Your task to perform on an android device: Play the latest video from the Wall Street Journal Image 0: 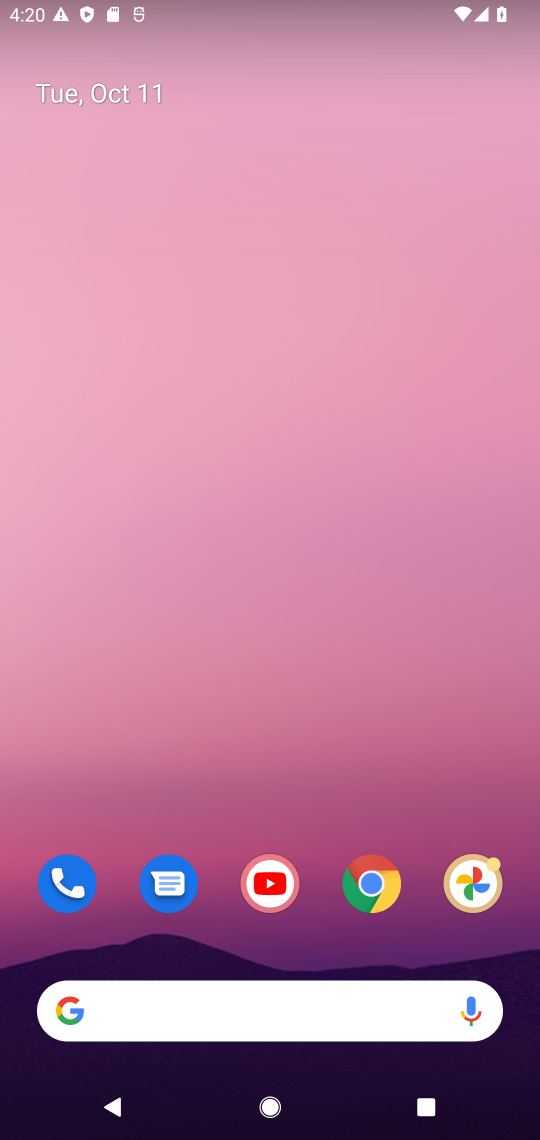
Step 0: drag from (321, 955) to (312, 69)
Your task to perform on an android device: Play the latest video from the Wall Street Journal Image 1: 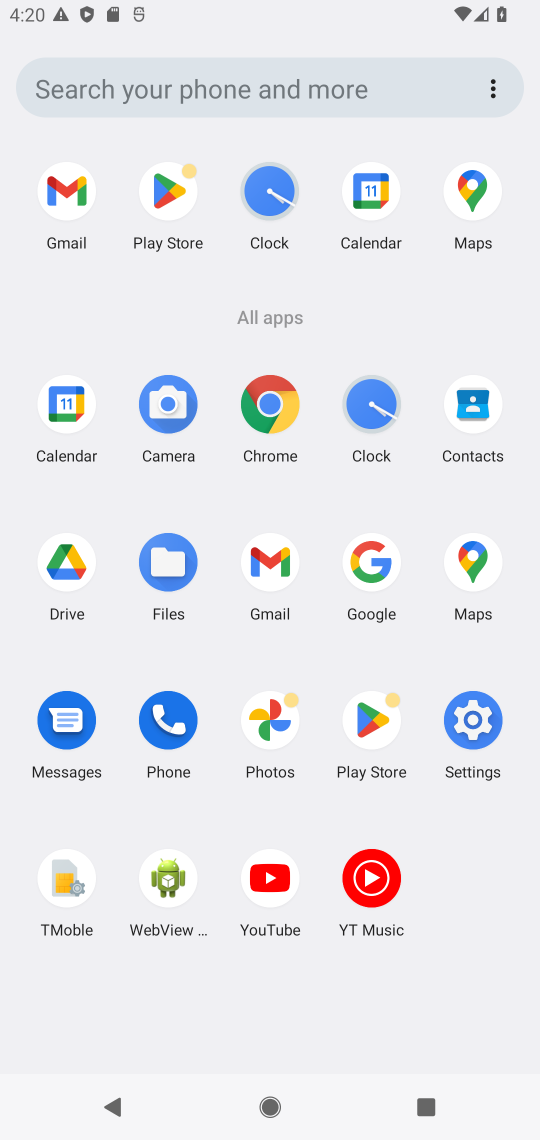
Step 1: click (268, 405)
Your task to perform on an android device: Play the latest video from the Wall Street Journal Image 2: 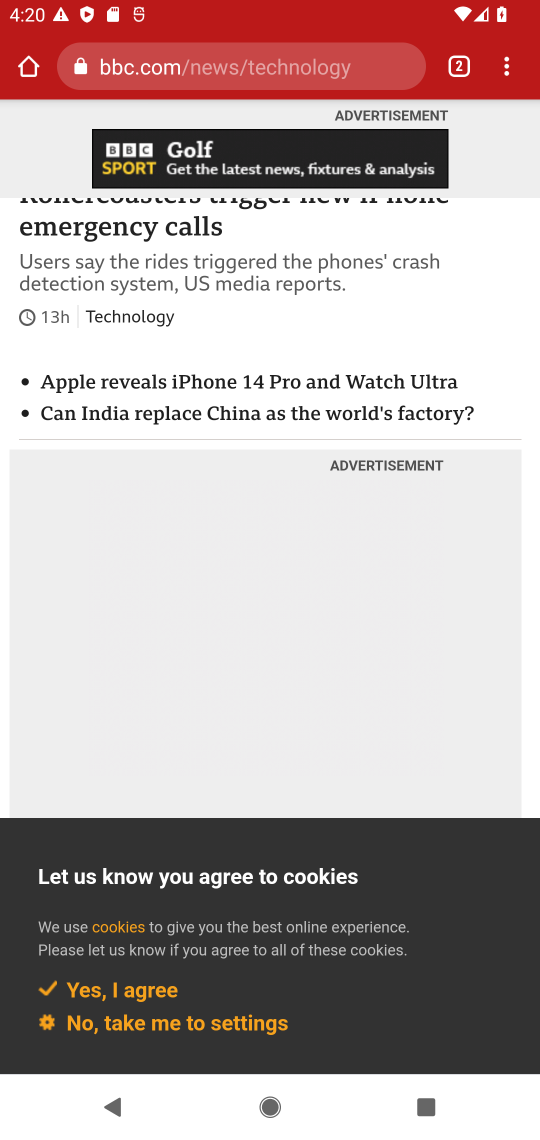
Step 2: click (266, 68)
Your task to perform on an android device: Play the latest video from the Wall Street Journal Image 3: 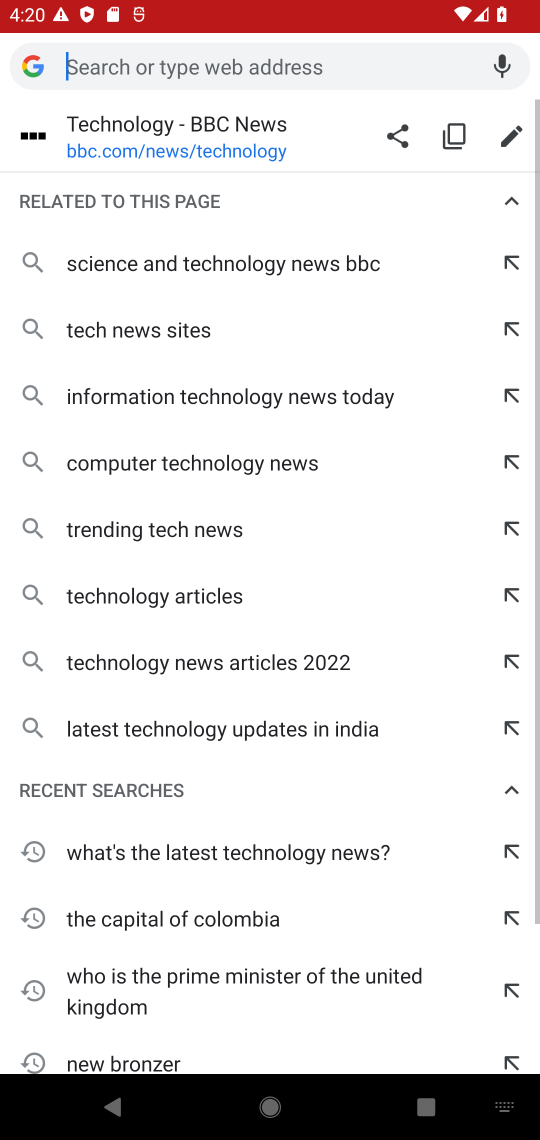
Step 3: press home button
Your task to perform on an android device: Play the latest video from the Wall Street Journal Image 4: 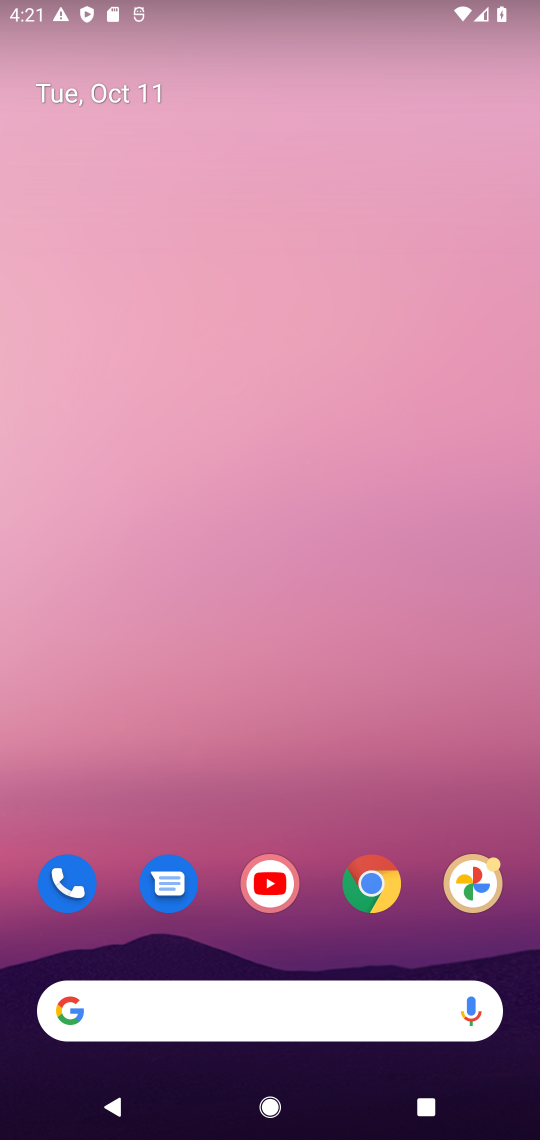
Step 4: drag from (327, 959) to (252, 5)
Your task to perform on an android device: Play the latest video from the Wall Street Journal Image 5: 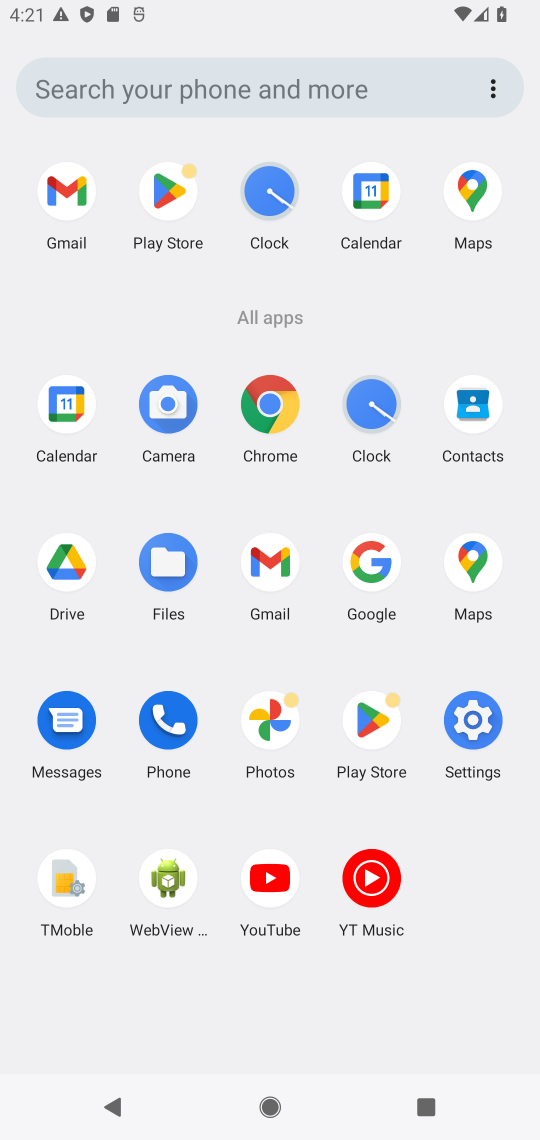
Step 5: click (266, 871)
Your task to perform on an android device: Play the latest video from the Wall Street Journal Image 6: 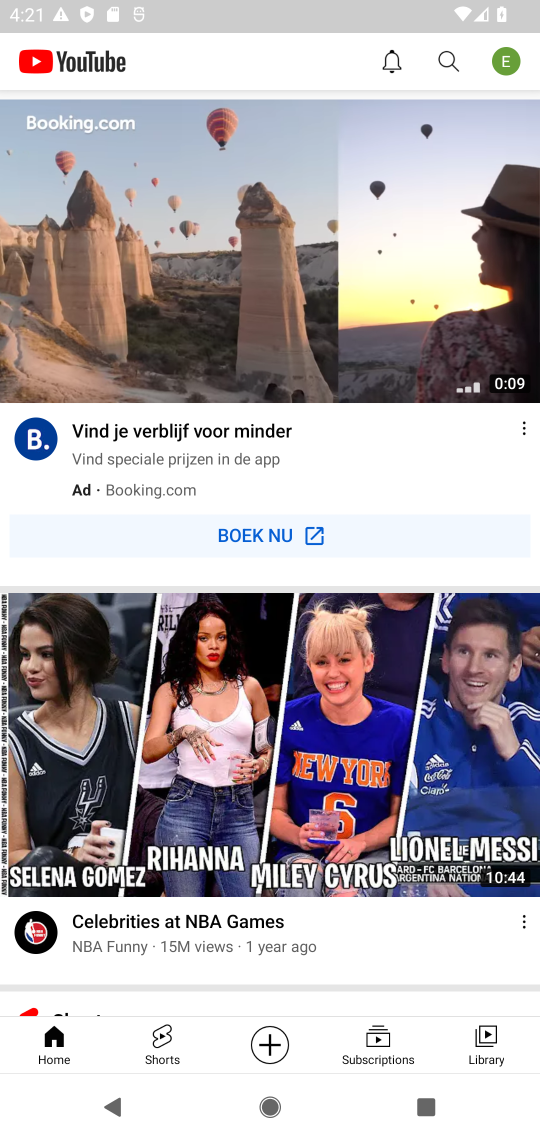
Step 6: click (440, 64)
Your task to perform on an android device: Play the latest video from the Wall Street Journal Image 7: 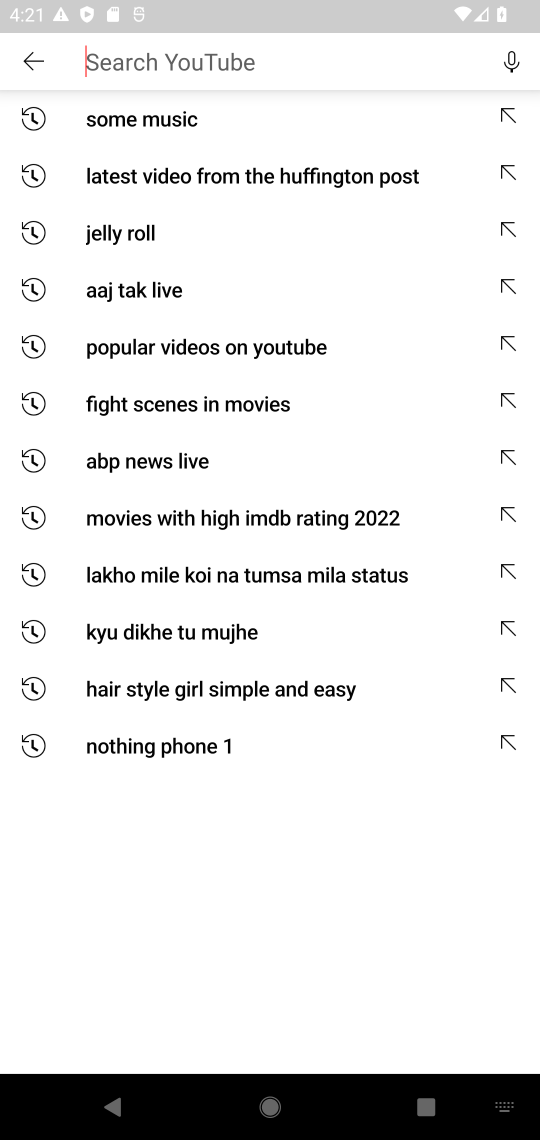
Step 7: type "Wall Street Journal"
Your task to perform on an android device: Play the latest video from the Wall Street Journal Image 8: 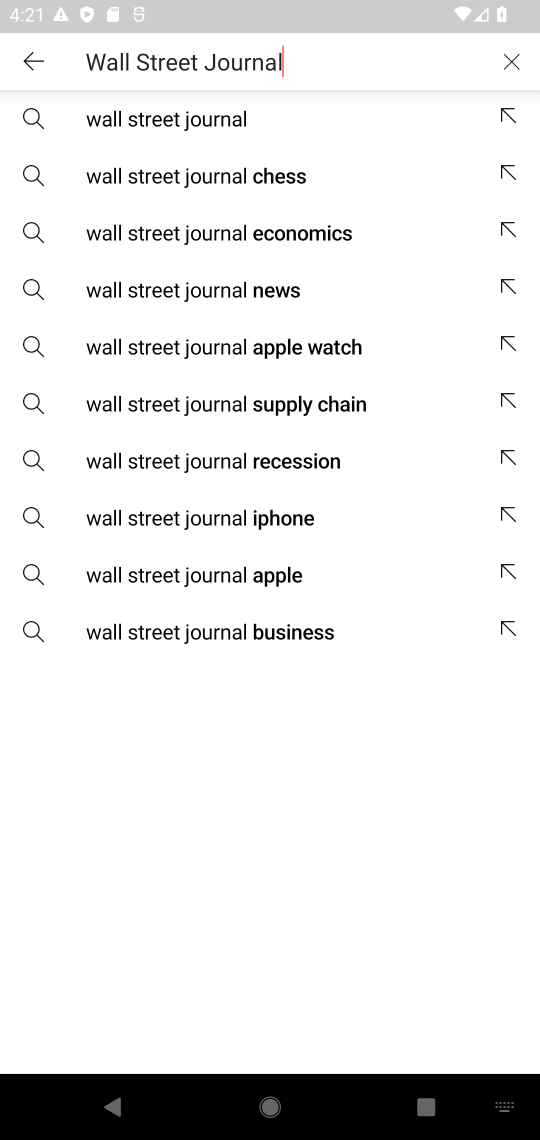
Step 8: press enter
Your task to perform on an android device: Play the latest video from the Wall Street Journal Image 9: 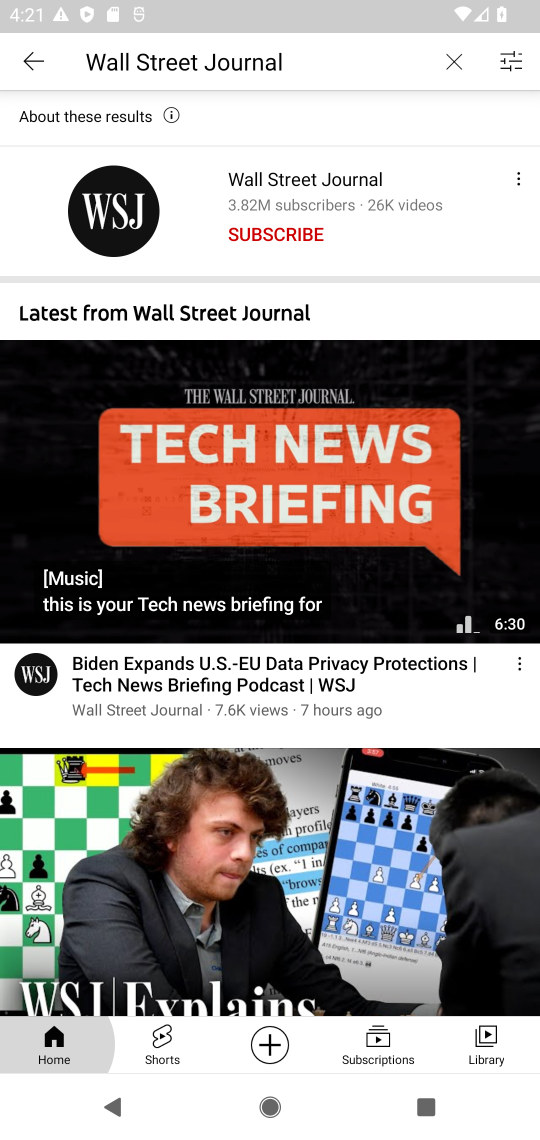
Step 9: click (269, 184)
Your task to perform on an android device: Play the latest video from the Wall Street Journal Image 10: 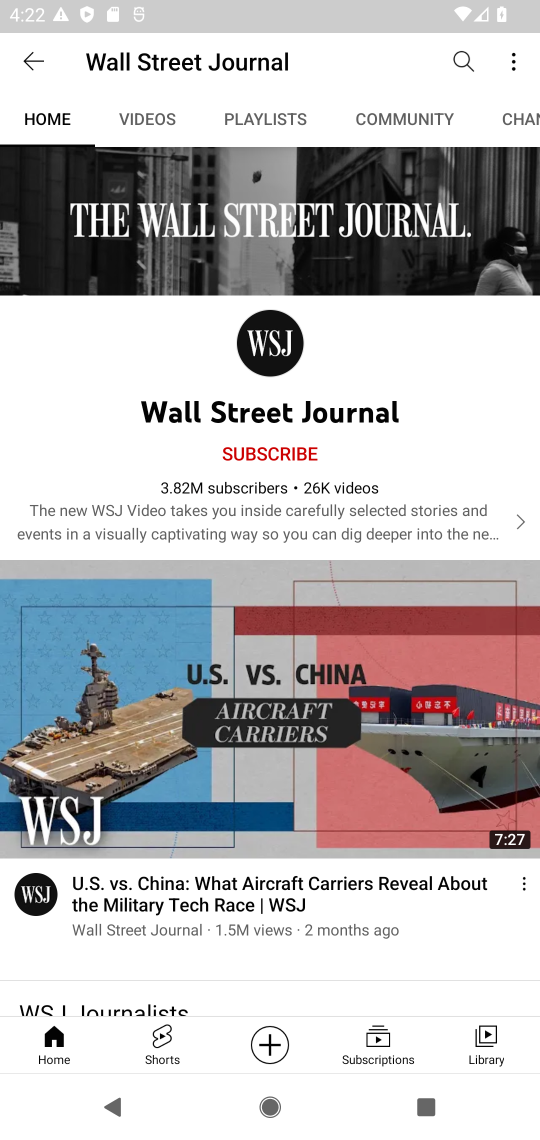
Step 10: click (138, 110)
Your task to perform on an android device: Play the latest video from the Wall Street Journal Image 11: 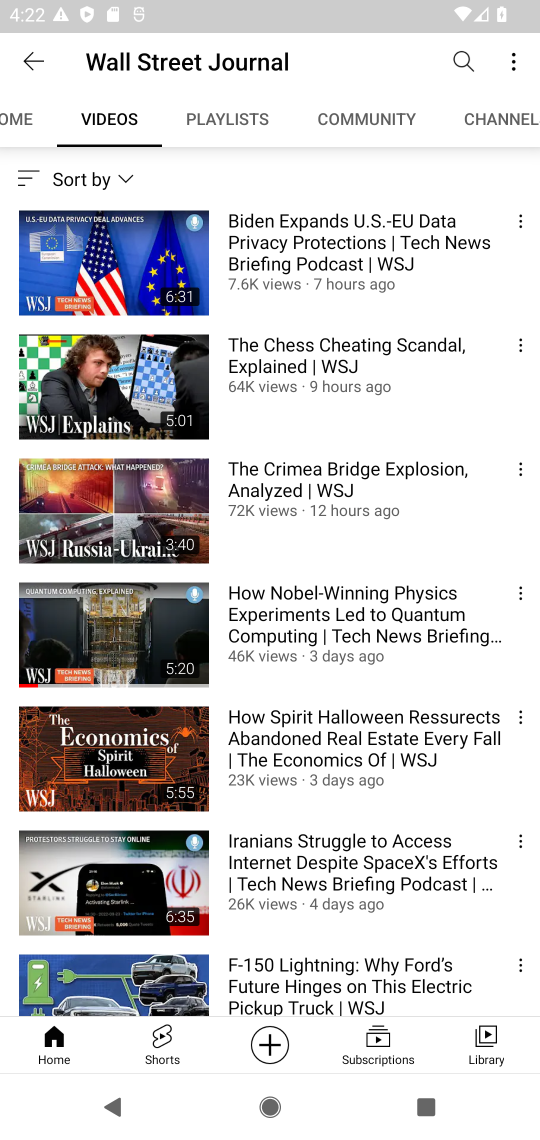
Step 11: click (130, 258)
Your task to perform on an android device: Play the latest video from the Wall Street Journal Image 12: 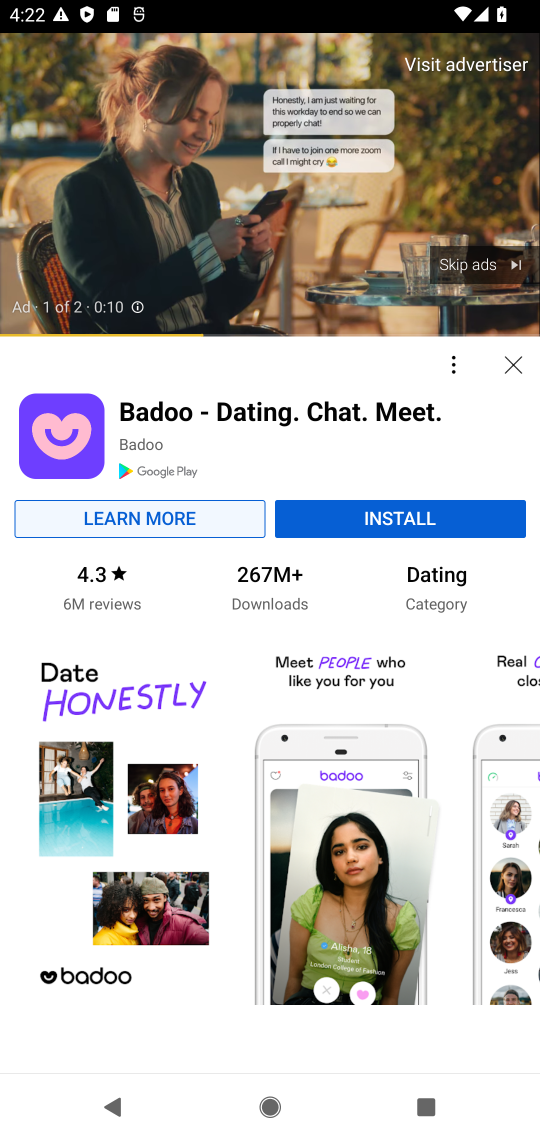
Step 12: click (515, 277)
Your task to perform on an android device: Play the latest video from the Wall Street Journal Image 13: 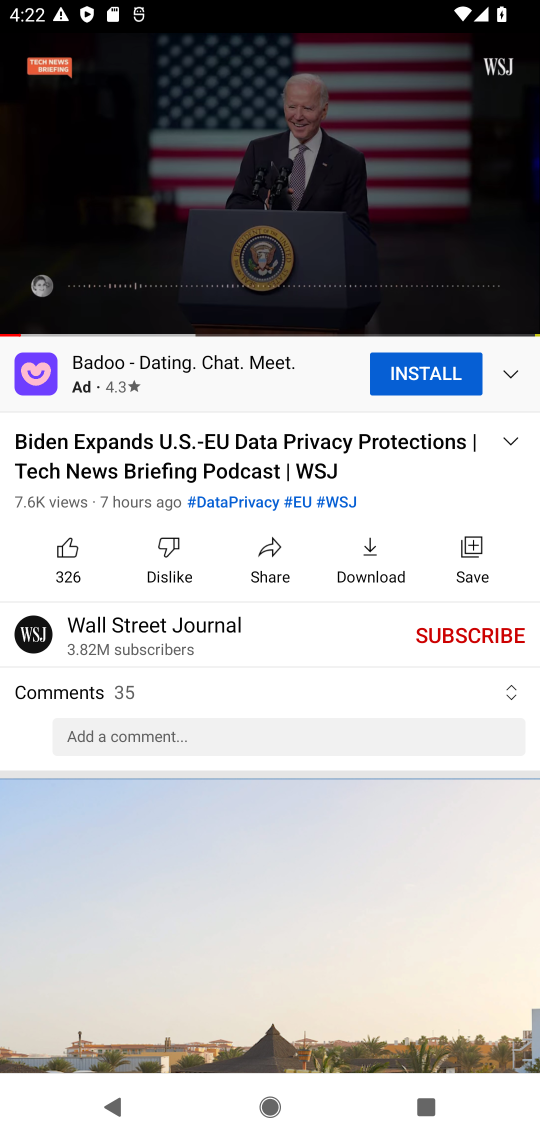
Step 13: task complete